Your task to perform on an android device: Go to Wikipedia Image 0: 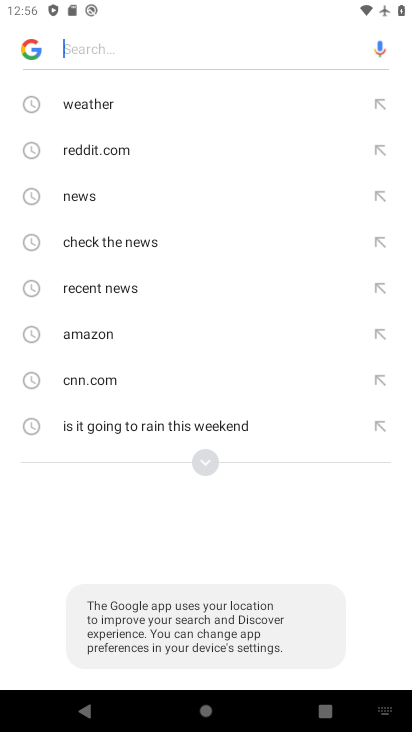
Step 0: click (121, 53)
Your task to perform on an android device: Go to Wikipedia Image 1: 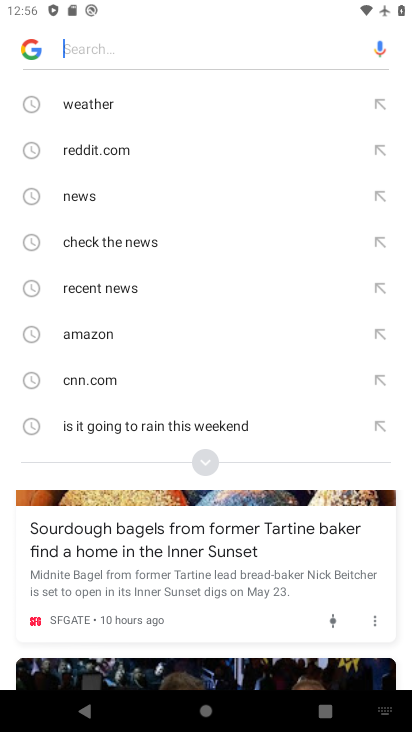
Step 1: type "wikipedia"
Your task to perform on an android device: Go to Wikipedia Image 2: 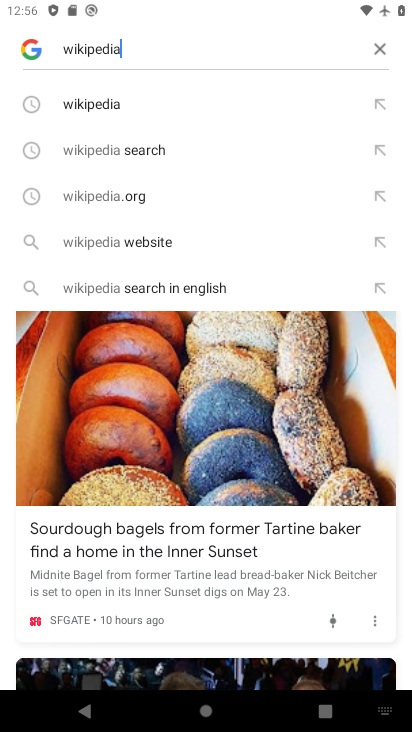
Step 2: click (100, 108)
Your task to perform on an android device: Go to Wikipedia Image 3: 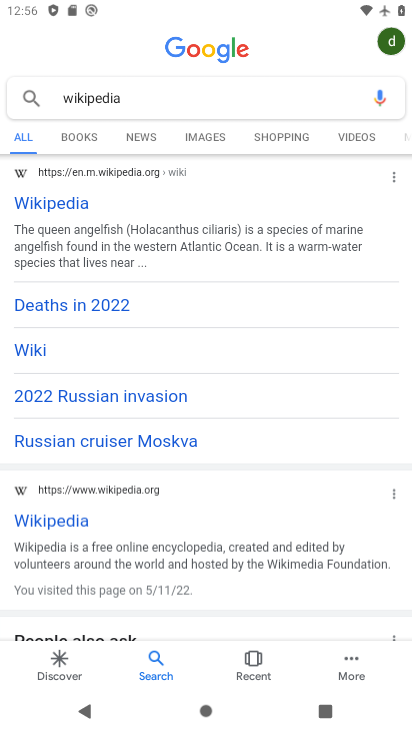
Step 3: click (70, 189)
Your task to perform on an android device: Go to Wikipedia Image 4: 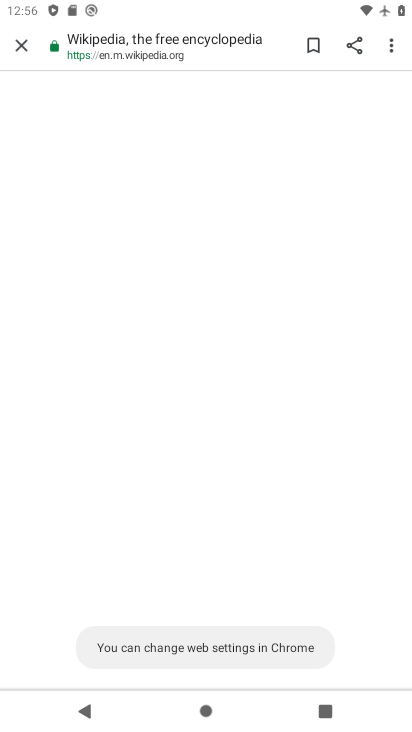
Step 4: task complete